Your task to perform on an android device: manage bookmarks in the chrome app Image 0: 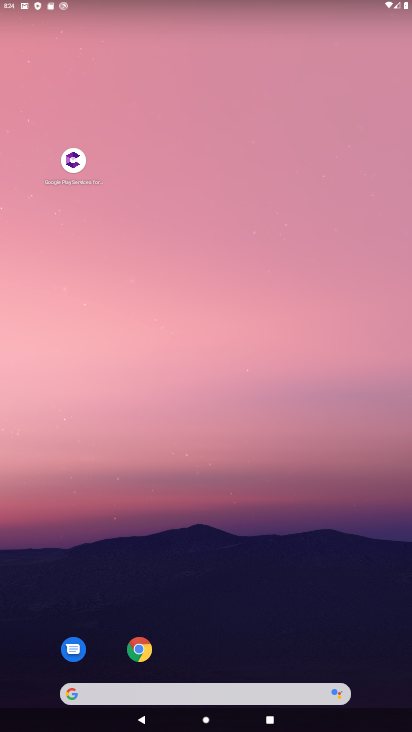
Step 0: drag from (279, 584) to (233, 1)
Your task to perform on an android device: manage bookmarks in the chrome app Image 1: 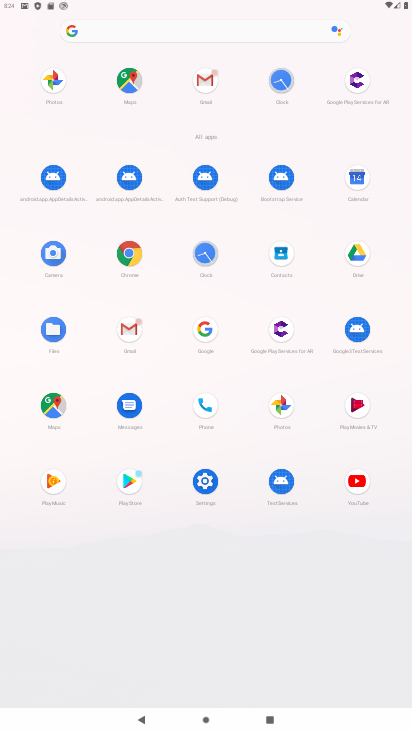
Step 1: click (138, 263)
Your task to perform on an android device: manage bookmarks in the chrome app Image 2: 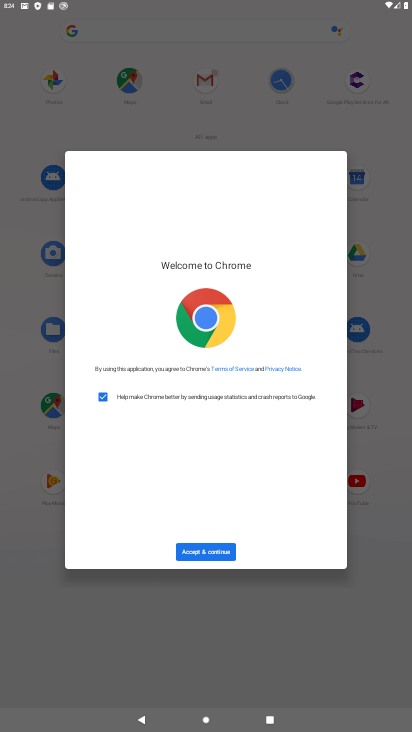
Step 2: click (189, 545)
Your task to perform on an android device: manage bookmarks in the chrome app Image 3: 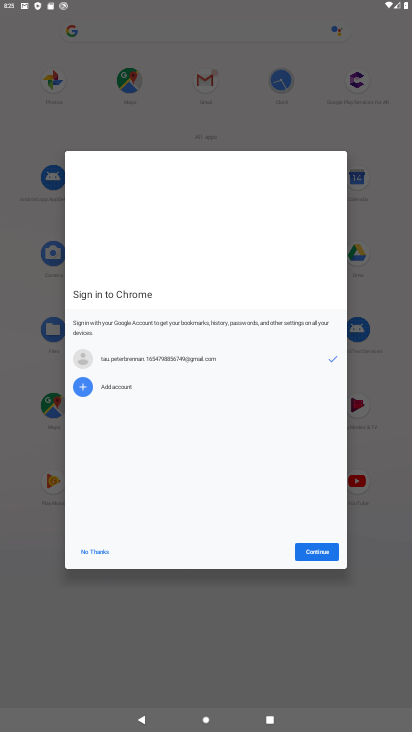
Step 3: click (103, 554)
Your task to perform on an android device: manage bookmarks in the chrome app Image 4: 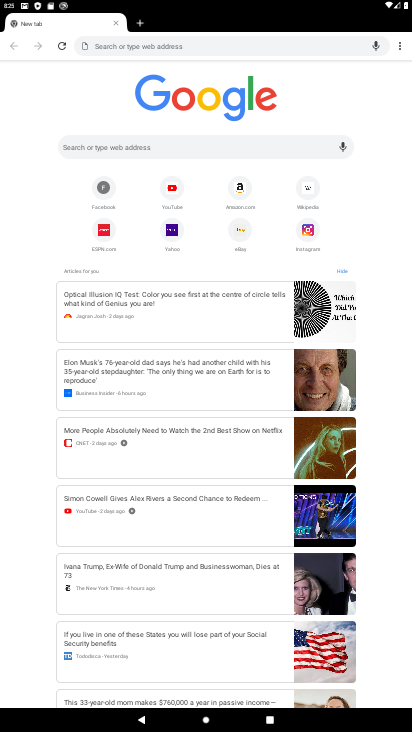
Step 4: drag from (401, 35) to (306, 92)
Your task to perform on an android device: manage bookmarks in the chrome app Image 5: 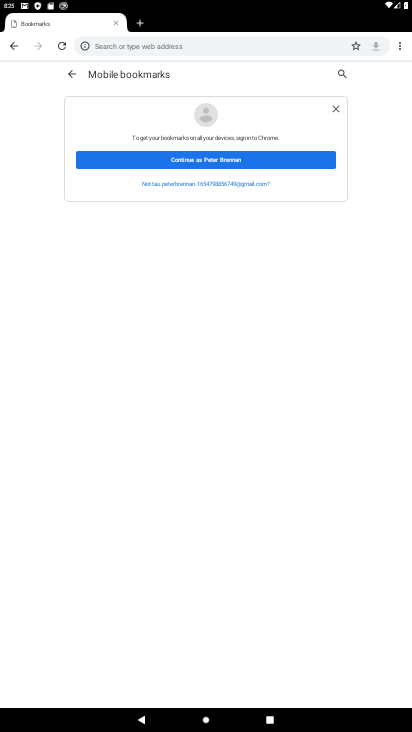
Step 5: click (217, 160)
Your task to perform on an android device: manage bookmarks in the chrome app Image 6: 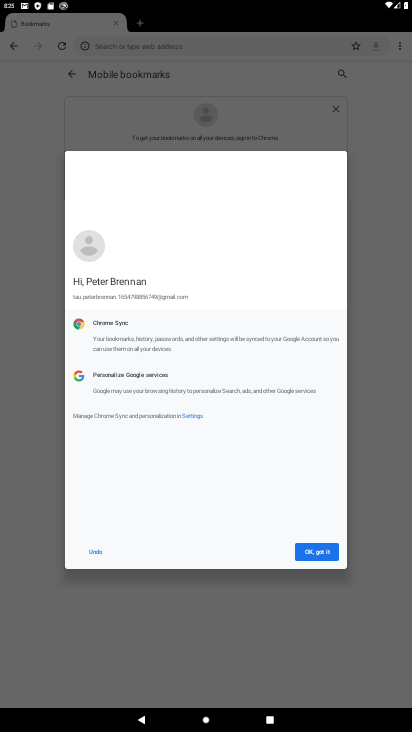
Step 6: click (308, 552)
Your task to perform on an android device: manage bookmarks in the chrome app Image 7: 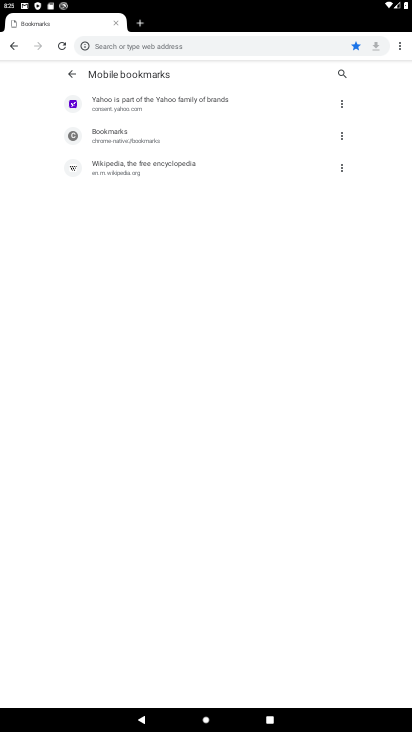
Step 7: click (347, 109)
Your task to perform on an android device: manage bookmarks in the chrome app Image 8: 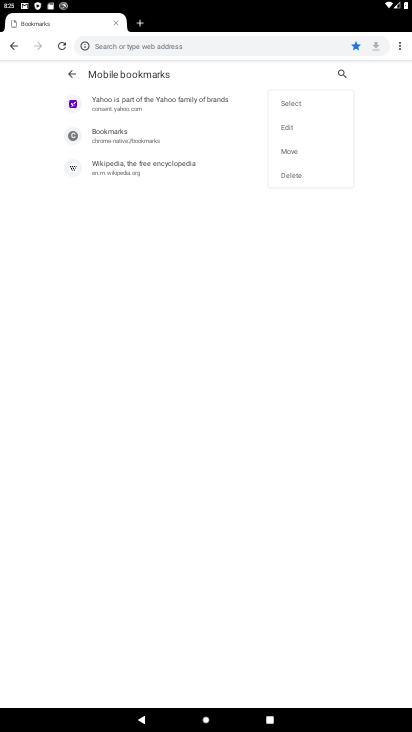
Step 8: click (306, 178)
Your task to perform on an android device: manage bookmarks in the chrome app Image 9: 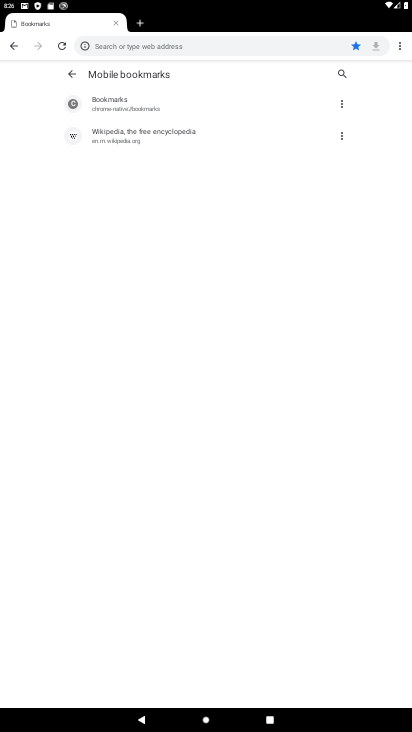
Step 9: task complete